Your task to perform on an android device: delete the emails in spam in the gmail app Image 0: 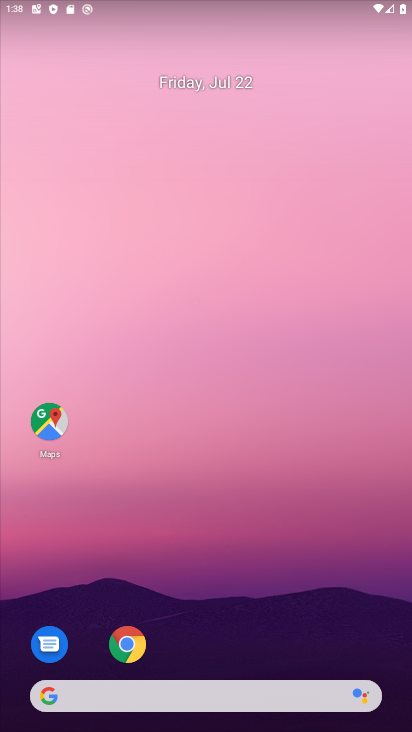
Step 0: drag from (208, 651) to (202, 340)
Your task to perform on an android device: delete the emails in spam in the gmail app Image 1: 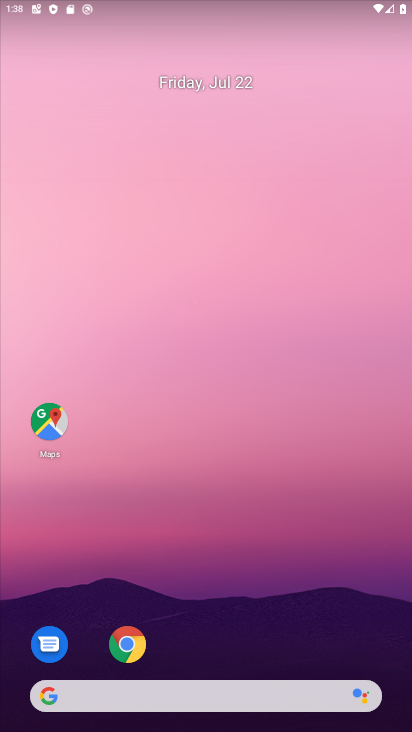
Step 1: drag from (211, 669) to (198, 298)
Your task to perform on an android device: delete the emails in spam in the gmail app Image 2: 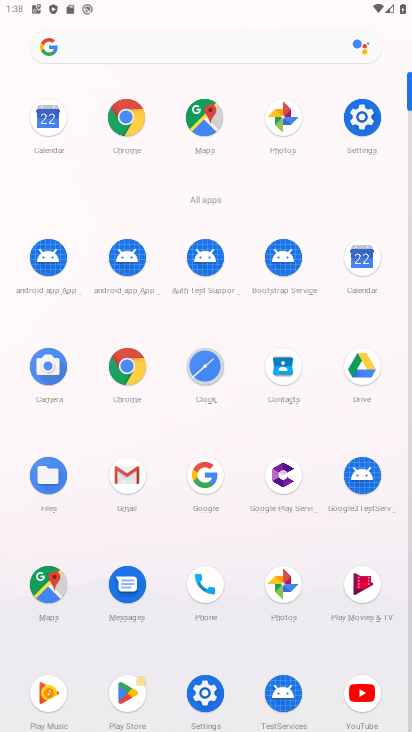
Step 2: click (125, 463)
Your task to perform on an android device: delete the emails in spam in the gmail app Image 3: 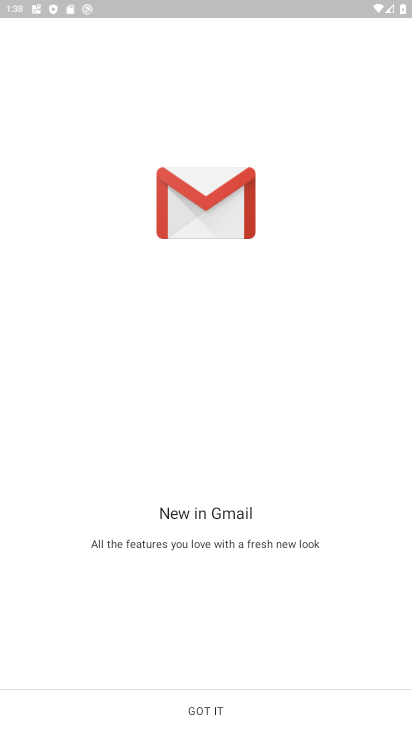
Step 3: click (208, 699)
Your task to perform on an android device: delete the emails in spam in the gmail app Image 4: 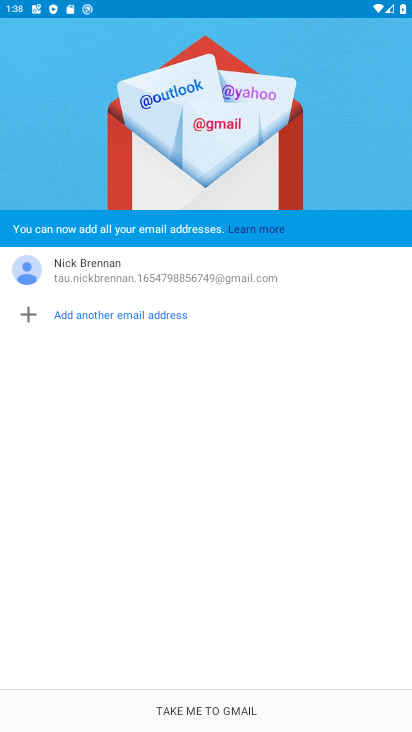
Step 4: click (208, 699)
Your task to perform on an android device: delete the emails in spam in the gmail app Image 5: 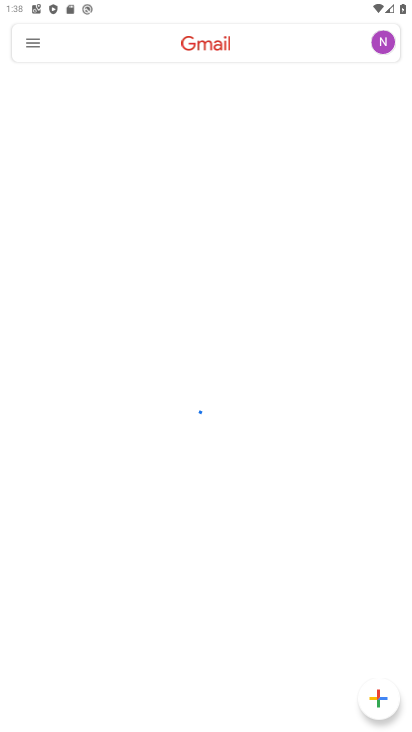
Step 5: click (32, 35)
Your task to perform on an android device: delete the emails in spam in the gmail app Image 6: 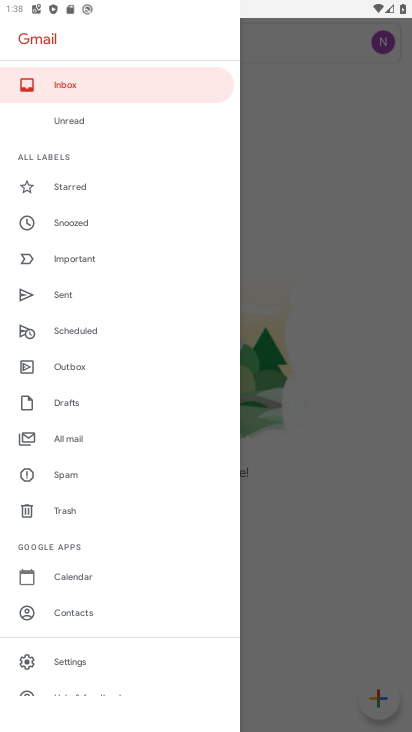
Step 6: click (72, 480)
Your task to perform on an android device: delete the emails in spam in the gmail app Image 7: 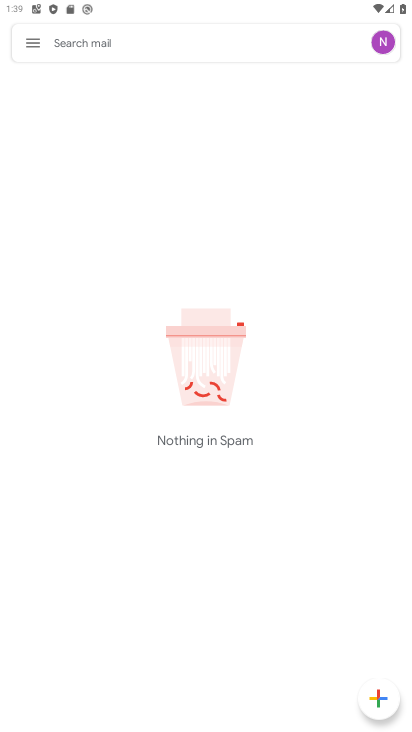
Step 7: task complete